Your task to perform on an android device: delete browsing data in the chrome app Image 0: 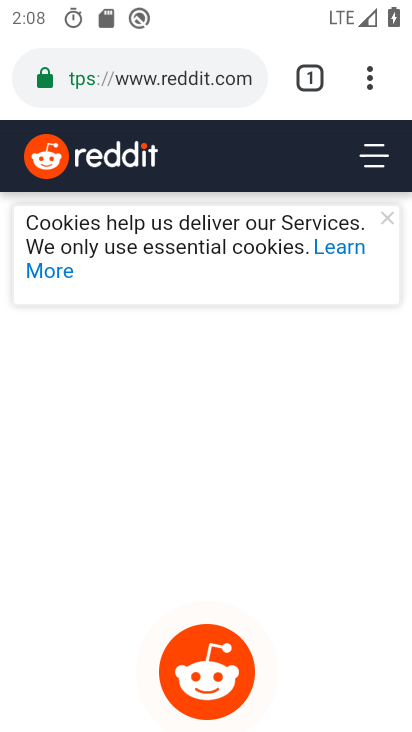
Step 0: press home button
Your task to perform on an android device: delete browsing data in the chrome app Image 1: 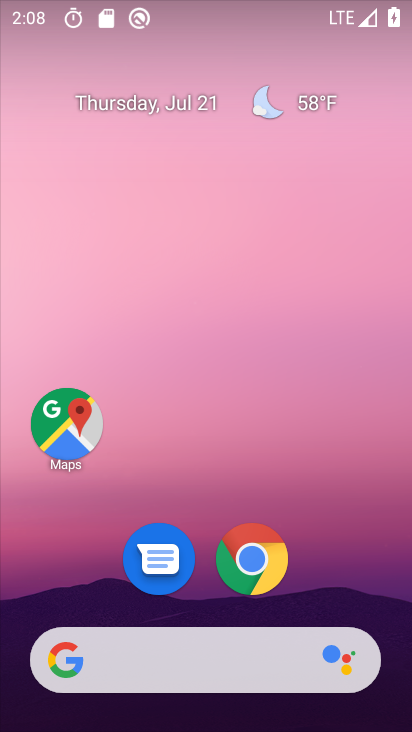
Step 1: drag from (365, 594) to (326, 83)
Your task to perform on an android device: delete browsing data in the chrome app Image 2: 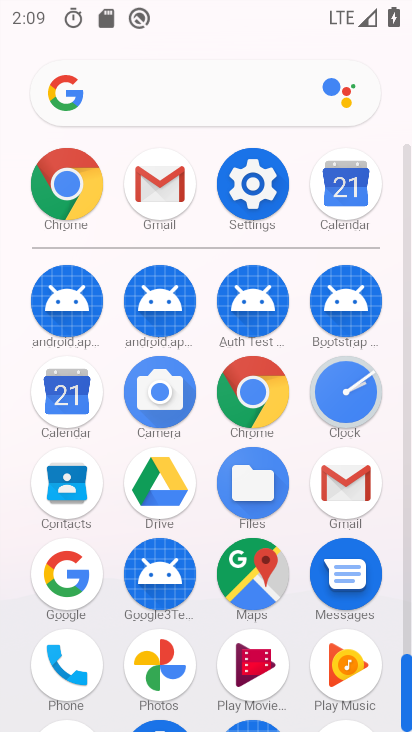
Step 2: click (261, 384)
Your task to perform on an android device: delete browsing data in the chrome app Image 3: 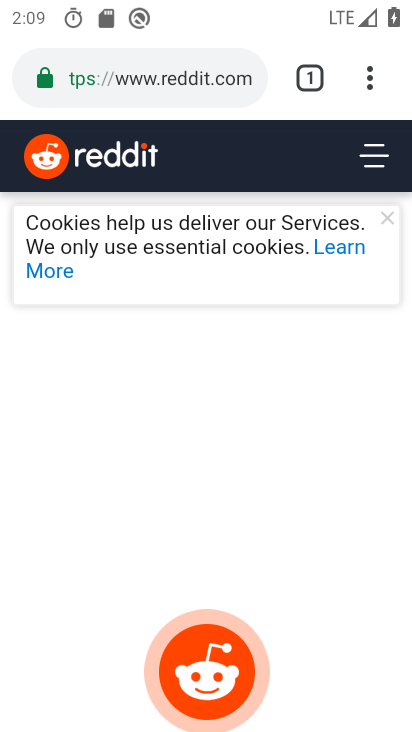
Step 3: click (370, 88)
Your task to perform on an android device: delete browsing data in the chrome app Image 4: 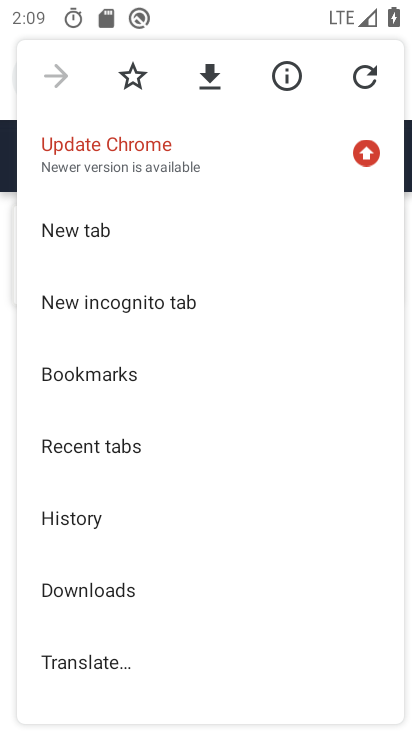
Step 4: drag from (304, 428) to (308, 344)
Your task to perform on an android device: delete browsing data in the chrome app Image 5: 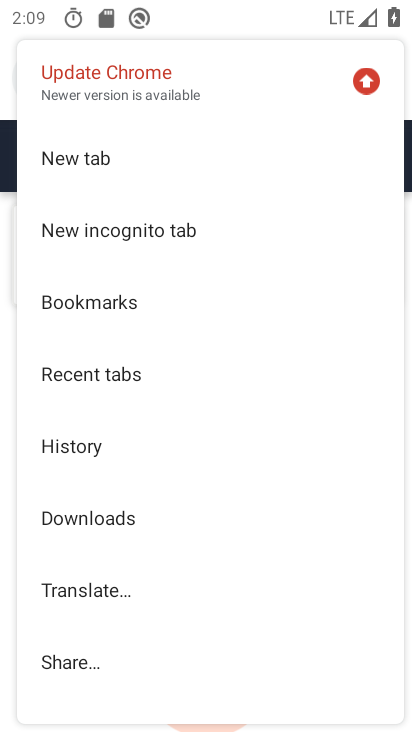
Step 5: drag from (292, 482) to (292, 372)
Your task to perform on an android device: delete browsing data in the chrome app Image 6: 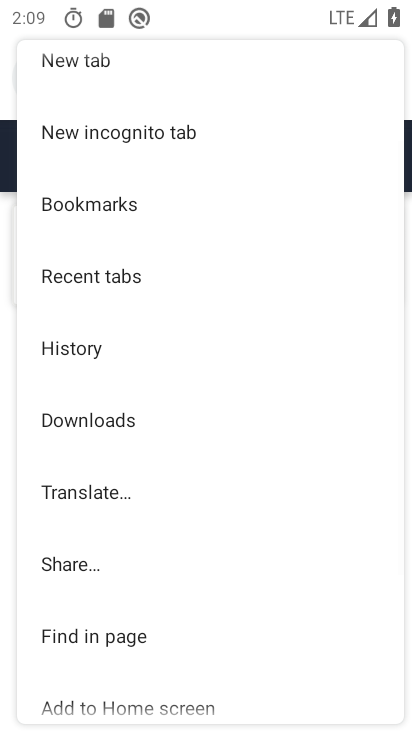
Step 6: drag from (284, 516) to (289, 395)
Your task to perform on an android device: delete browsing data in the chrome app Image 7: 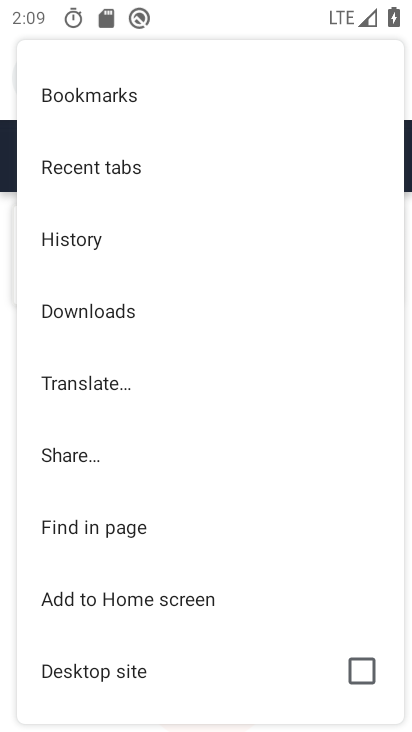
Step 7: drag from (278, 496) to (279, 342)
Your task to perform on an android device: delete browsing data in the chrome app Image 8: 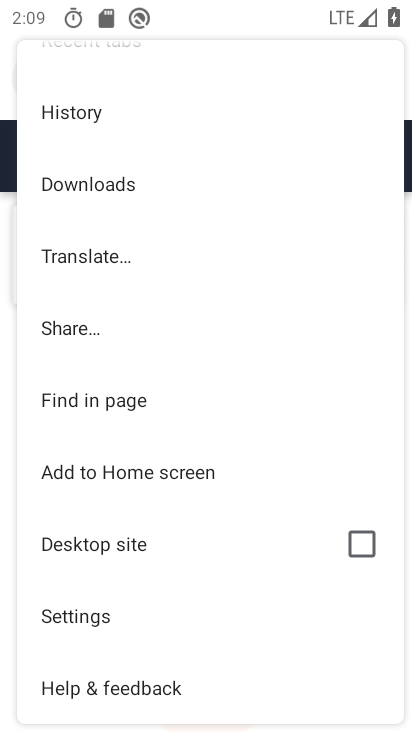
Step 8: drag from (271, 520) to (270, 415)
Your task to perform on an android device: delete browsing data in the chrome app Image 9: 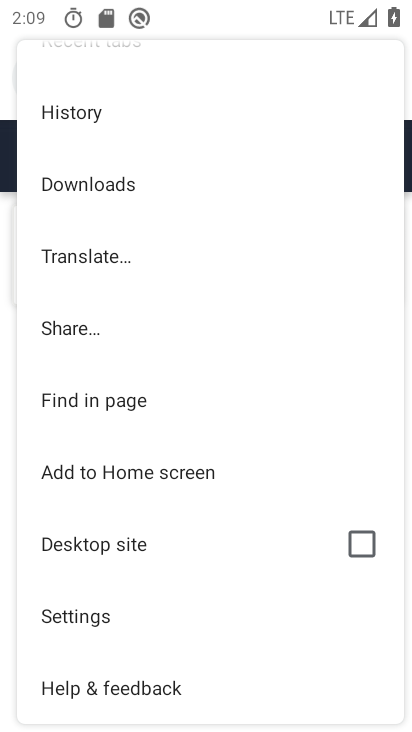
Step 9: click (265, 621)
Your task to perform on an android device: delete browsing data in the chrome app Image 10: 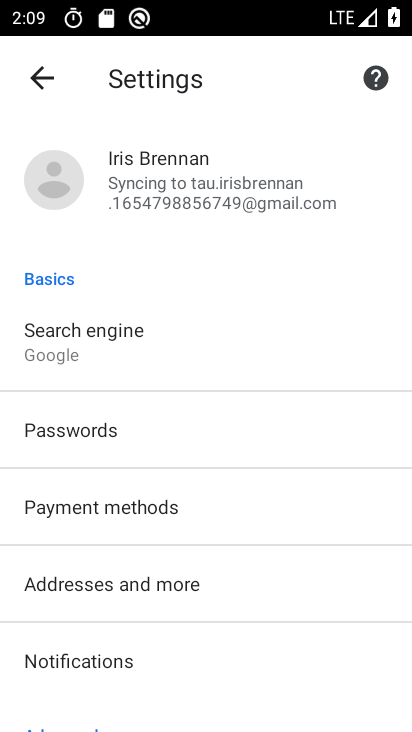
Step 10: drag from (318, 488) to (320, 366)
Your task to perform on an android device: delete browsing data in the chrome app Image 11: 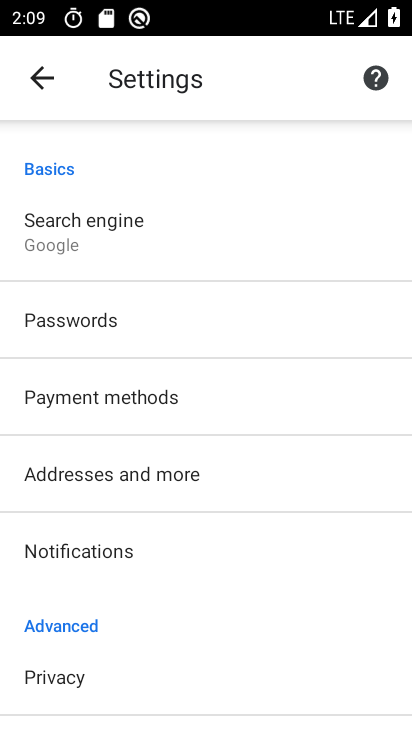
Step 11: drag from (336, 468) to (343, 374)
Your task to perform on an android device: delete browsing data in the chrome app Image 12: 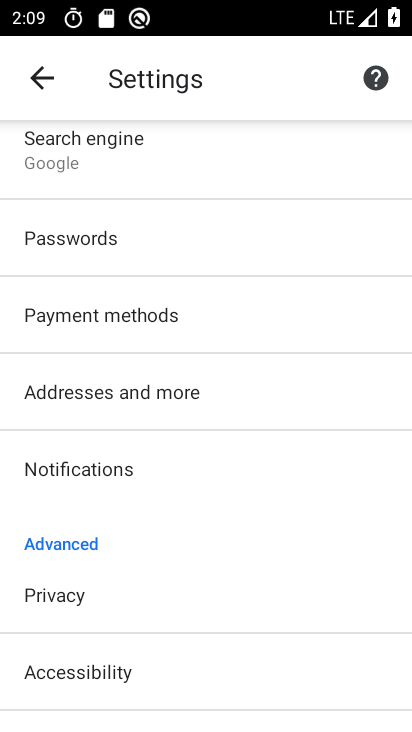
Step 12: drag from (351, 449) to (354, 339)
Your task to perform on an android device: delete browsing data in the chrome app Image 13: 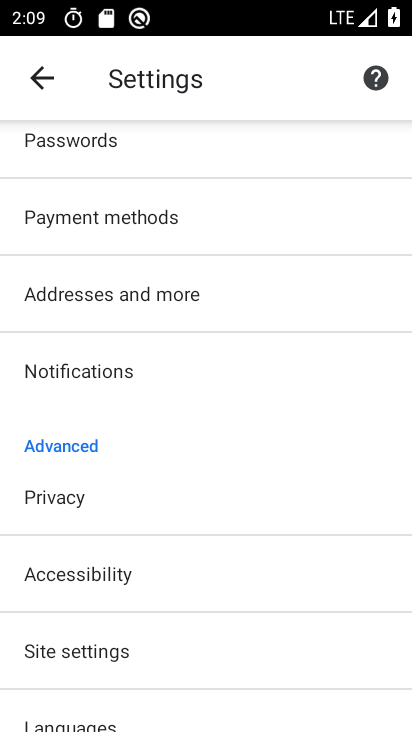
Step 13: drag from (315, 466) to (321, 357)
Your task to perform on an android device: delete browsing data in the chrome app Image 14: 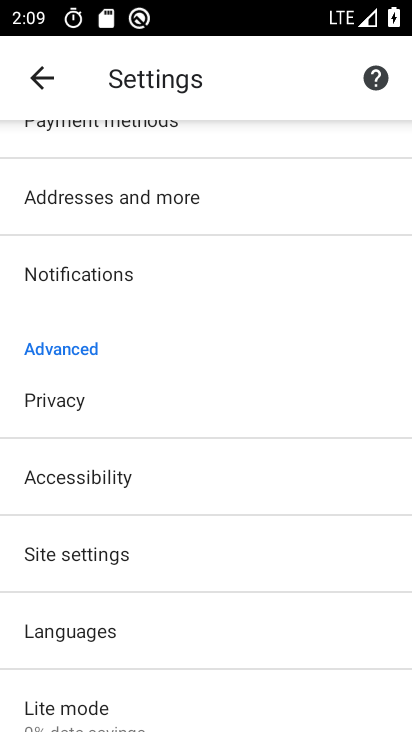
Step 14: click (321, 410)
Your task to perform on an android device: delete browsing data in the chrome app Image 15: 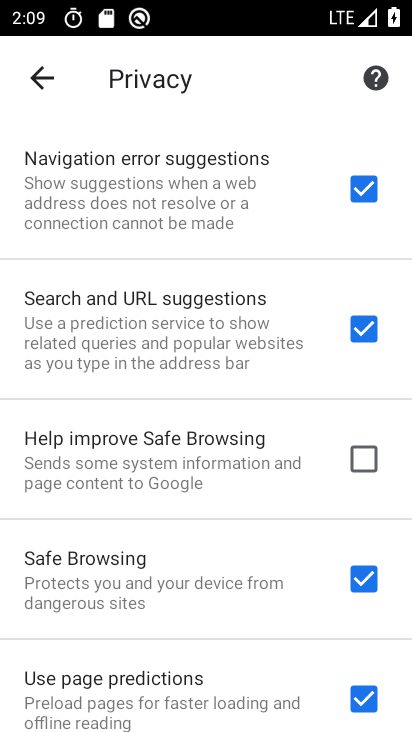
Step 15: drag from (256, 544) to (271, 417)
Your task to perform on an android device: delete browsing data in the chrome app Image 16: 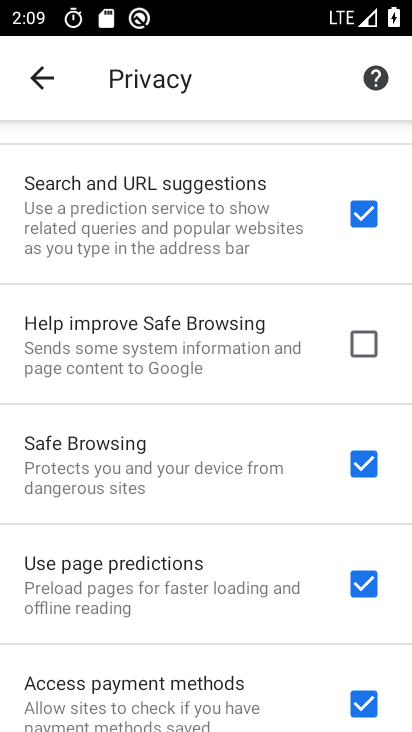
Step 16: drag from (271, 525) to (283, 368)
Your task to perform on an android device: delete browsing data in the chrome app Image 17: 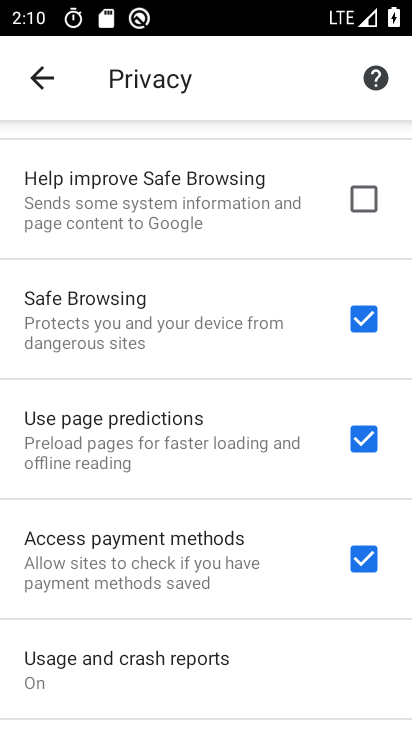
Step 17: drag from (294, 452) to (298, 332)
Your task to perform on an android device: delete browsing data in the chrome app Image 18: 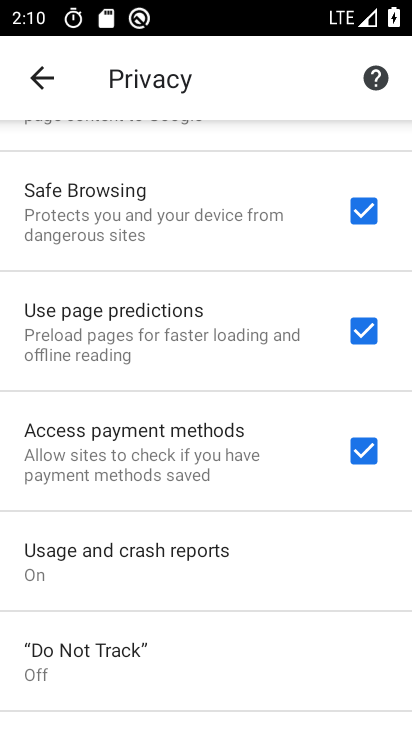
Step 18: drag from (296, 526) to (297, 401)
Your task to perform on an android device: delete browsing data in the chrome app Image 19: 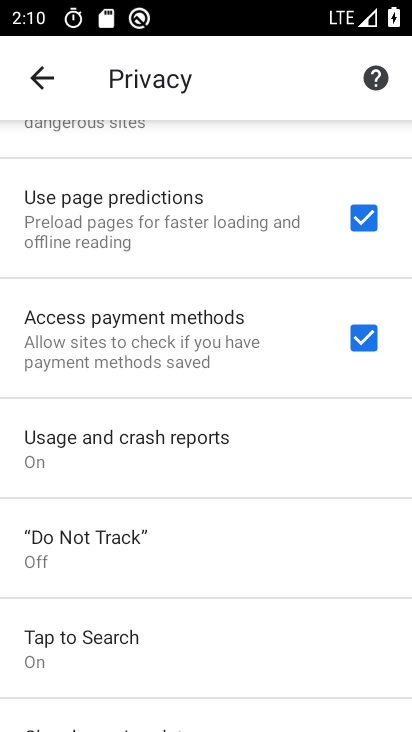
Step 19: drag from (298, 566) to (303, 410)
Your task to perform on an android device: delete browsing data in the chrome app Image 20: 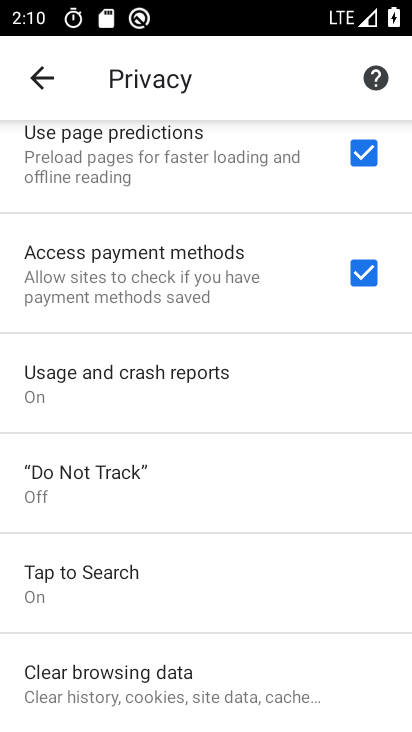
Step 20: click (307, 668)
Your task to perform on an android device: delete browsing data in the chrome app Image 21: 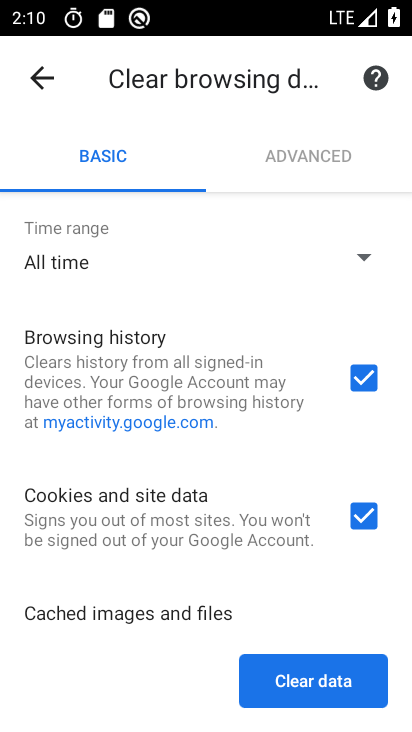
Step 21: click (321, 673)
Your task to perform on an android device: delete browsing data in the chrome app Image 22: 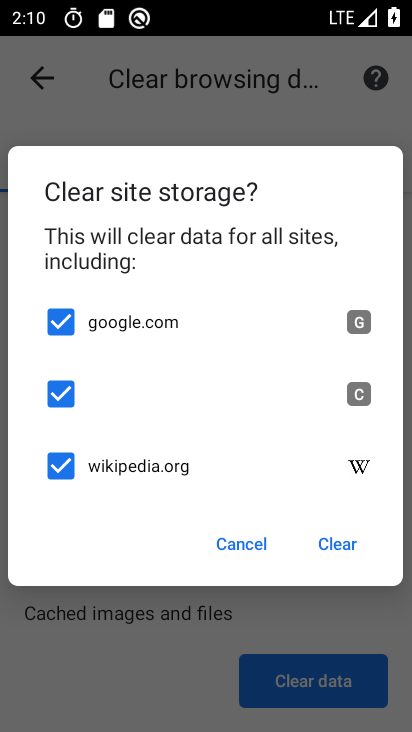
Step 22: click (354, 543)
Your task to perform on an android device: delete browsing data in the chrome app Image 23: 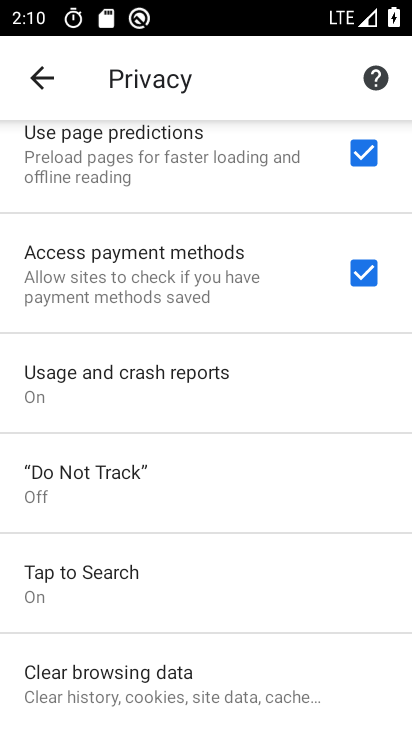
Step 23: task complete